Your task to perform on an android device: Open the web browser Image 0: 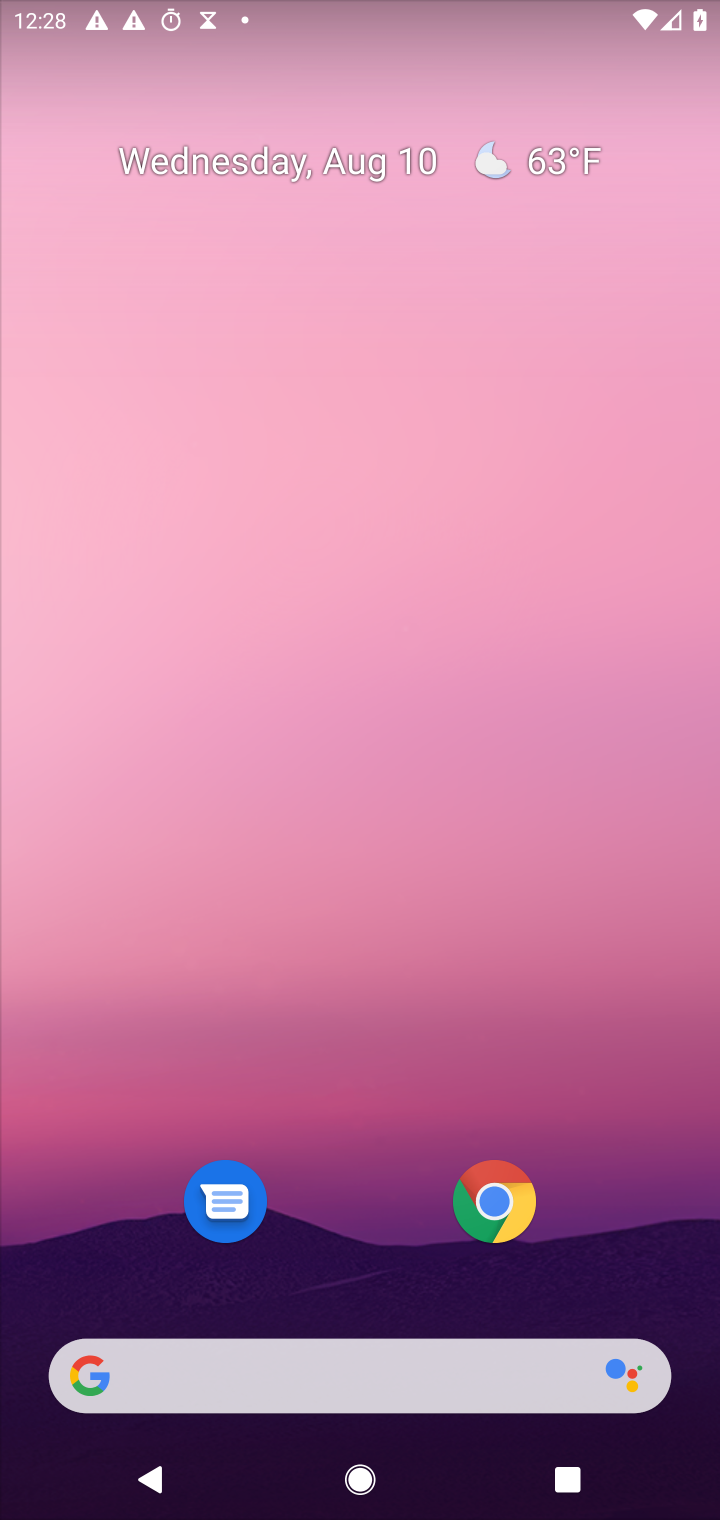
Step 0: press home button
Your task to perform on an android device: Open the web browser Image 1: 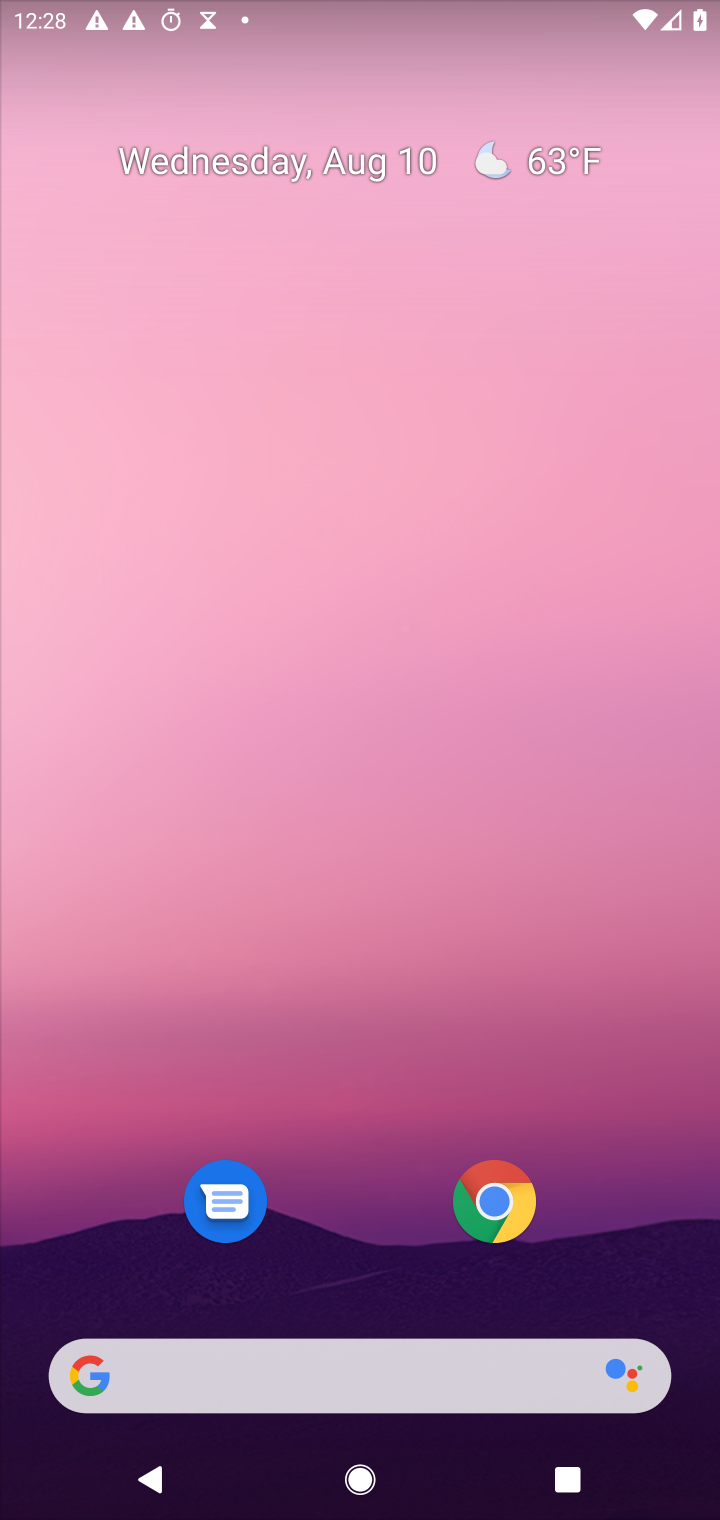
Step 1: drag from (327, 1259) to (324, 175)
Your task to perform on an android device: Open the web browser Image 2: 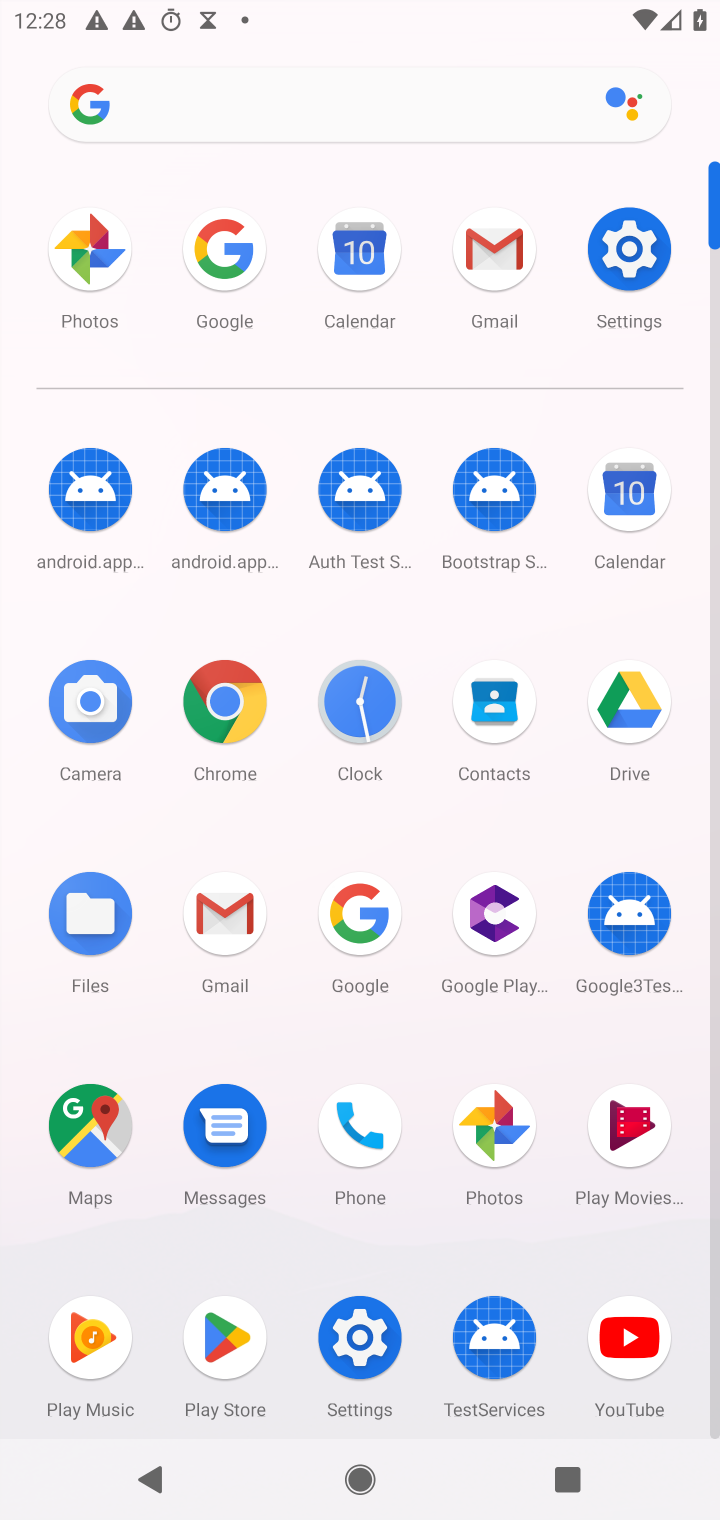
Step 2: click (199, 237)
Your task to perform on an android device: Open the web browser Image 3: 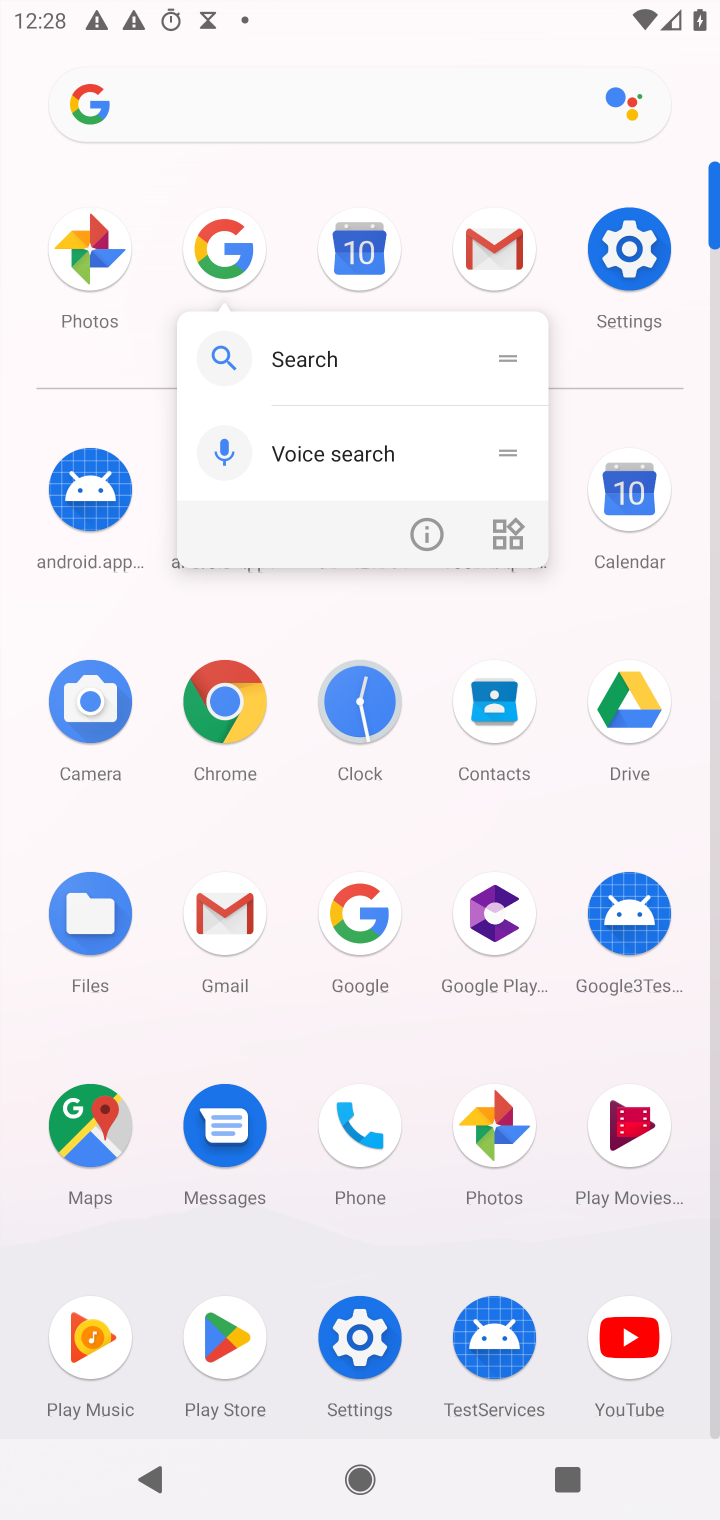
Step 3: click (212, 240)
Your task to perform on an android device: Open the web browser Image 4: 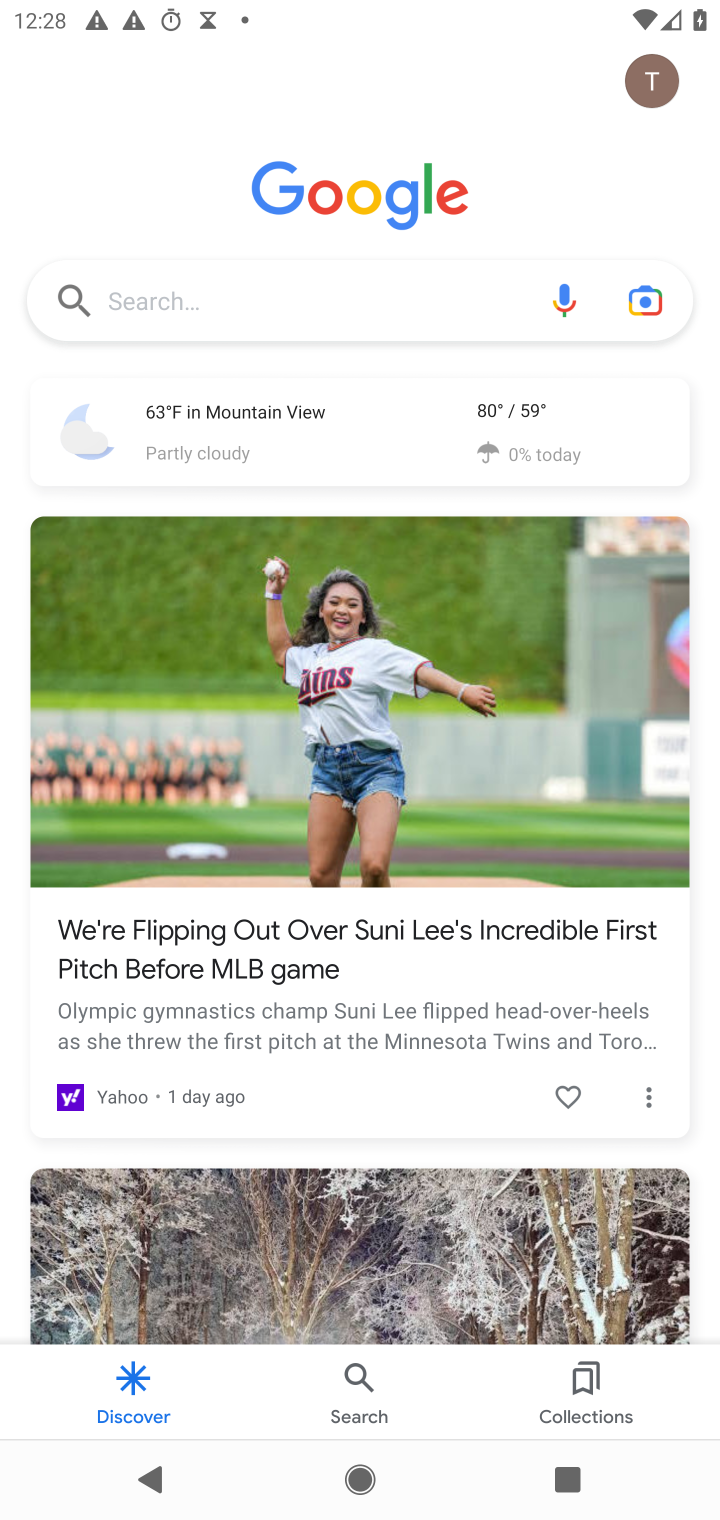
Step 4: click (376, 189)
Your task to perform on an android device: Open the web browser Image 5: 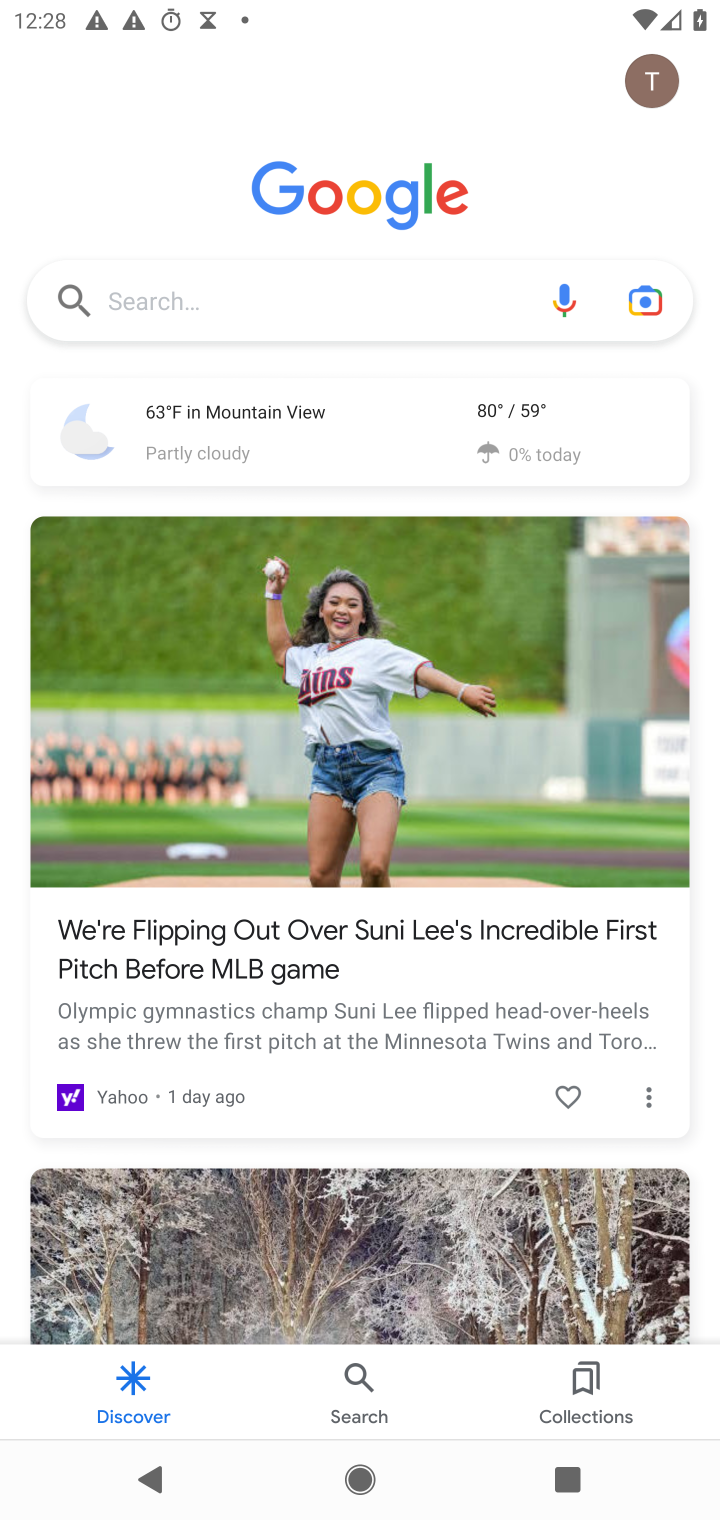
Step 5: task complete